Your task to perform on an android device: Open Google Image 0: 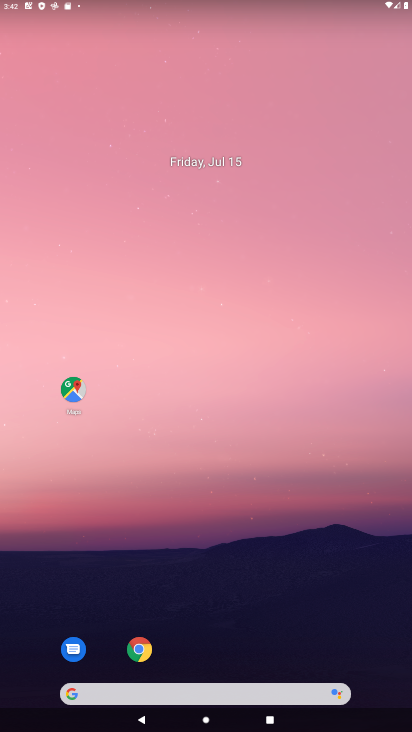
Step 0: drag from (263, 544) to (255, 82)
Your task to perform on an android device: Open Google Image 1: 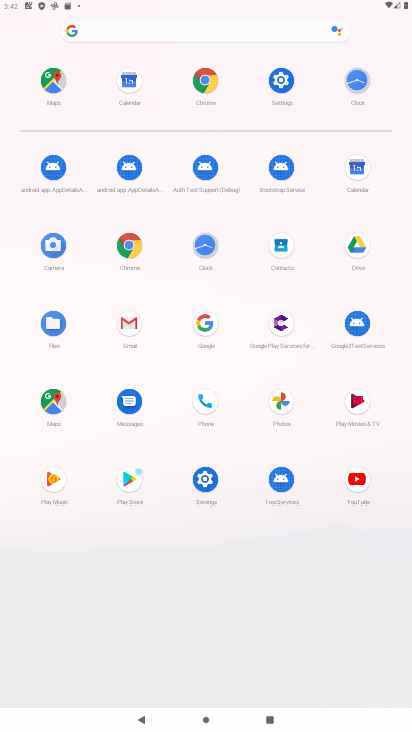
Step 1: click (211, 318)
Your task to perform on an android device: Open Google Image 2: 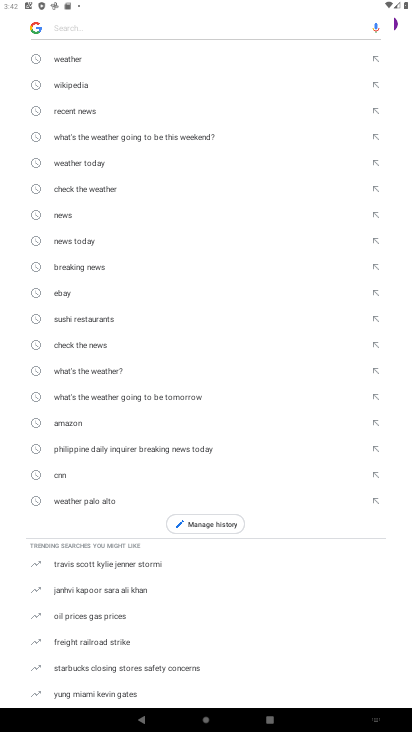
Step 2: task complete